Your task to perform on an android device: toggle wifi Image 0: 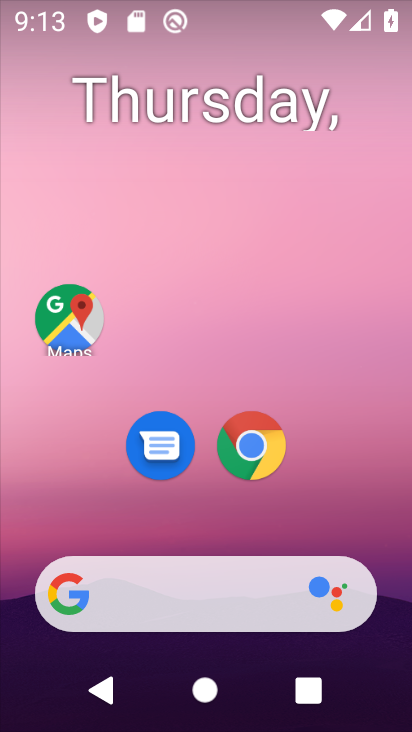
Step 0: drag from (65, 550) to (231, 89)
Your task to perform on an android device: toggle wifi Image 1: 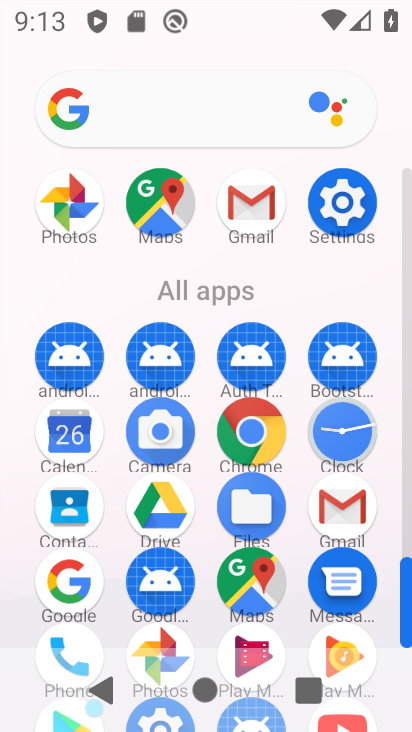
Step 1: drag from (235, 502) to (321, 156)
Your task to perform on an android device: toggle wifi Image 2: 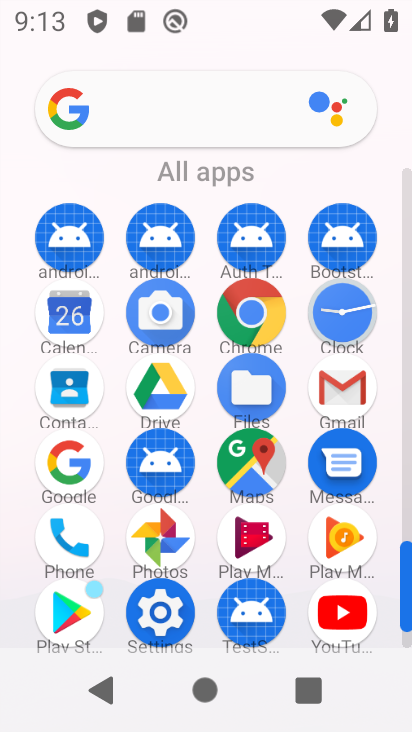
Step 2: click (157, 625)
Your task to perform on an android device: toggle wifi Image 3: 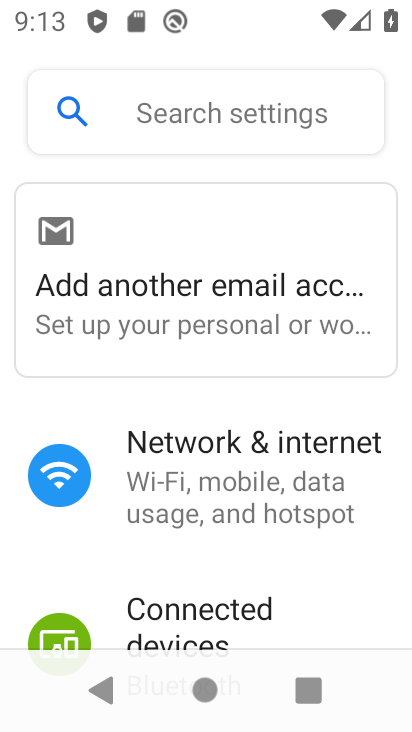
Step 3: click (261, 483)
Your task to perform on an android device: toggle wifi Image 4: 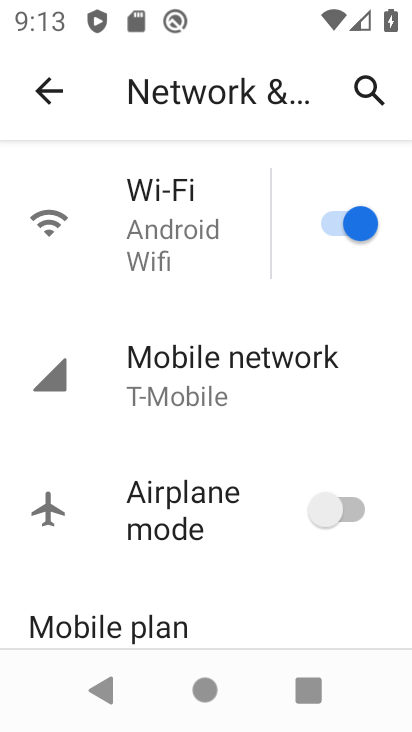
Step 4: click (338, 212)
Your task to perform on an android device: toggle wifi Image 5: 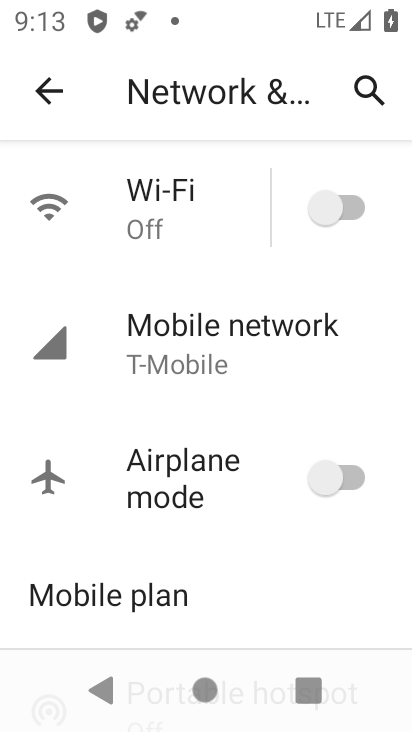
Step 5: task complete